Your task to perform on an android device: Go to ESPN.com Image 0: 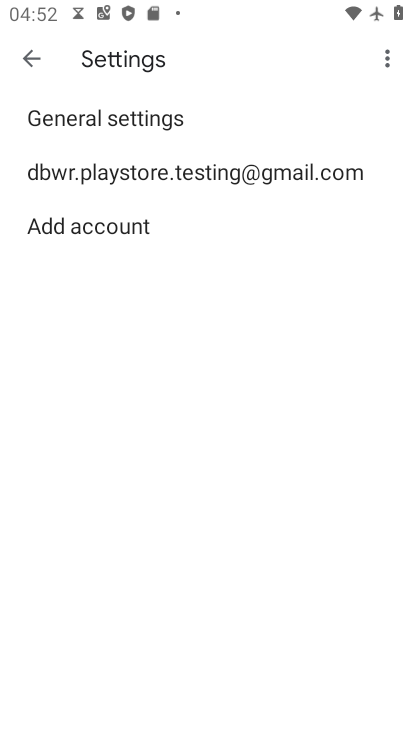
Step 0: press back button
Your task to perform on an android device: Go to ESPN.com Image 1: 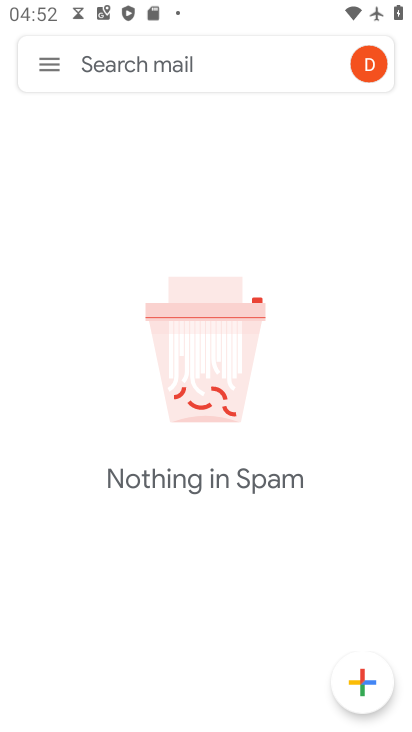
Step 1: press back button
Your task to perform on an android device: Go to ESPN.com Image 2: 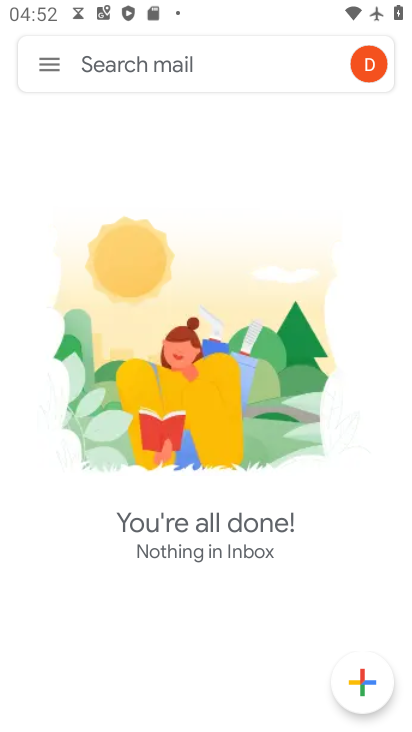
Step 2: press home button
Your task to perform on an android device: Go to ESPN.com Image 3: 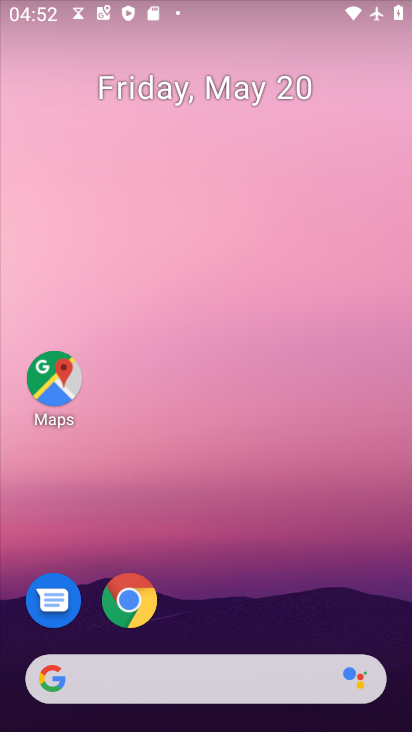
Step 3: drag from (321, 578) to (282, 40)
Your task to perform on an android device: Go to ESPN.com Image 4: 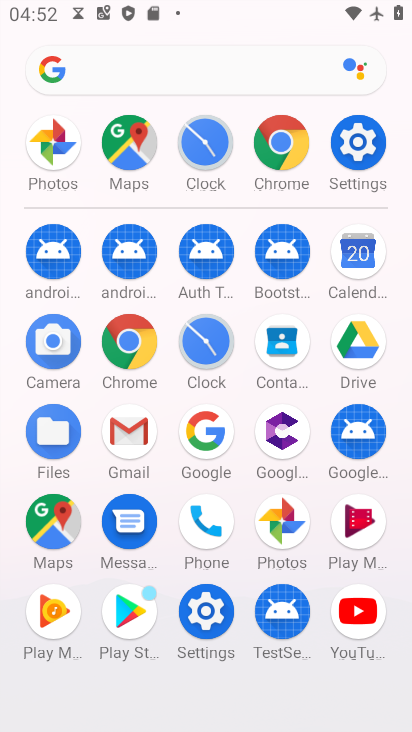
Step 4: click (119, 337)
Your task to perform on an android device: Go to ESPN.com Image 5: 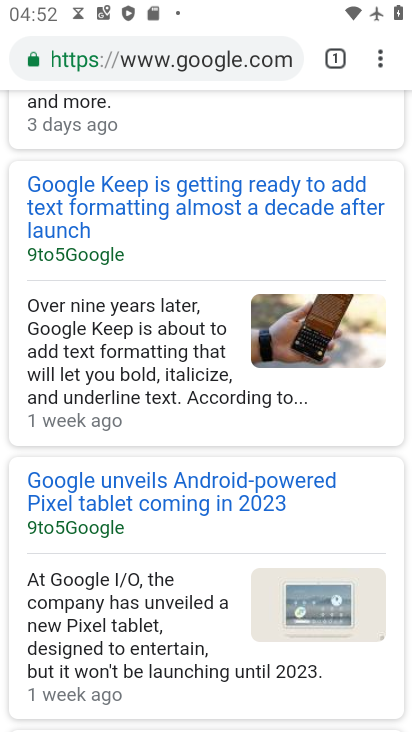
Step 5: click (172, 55)
Your task to perform on an android device: Go to ESPN.com Image 6: 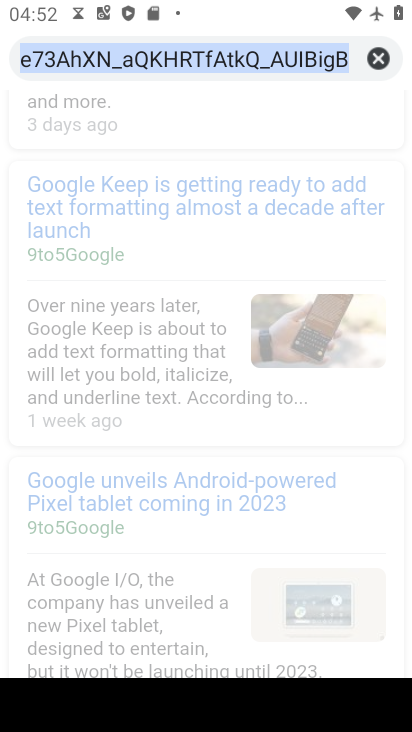
Step 6: click (377, 57)
Your task to perform on an android device: Go to ESPN.com Image 7: 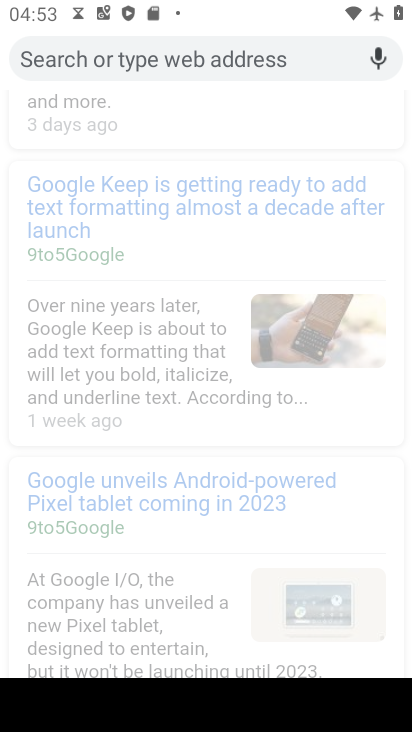
Step 7: type "ESPN.com"
Your task to perform on an android device: Go to ESPN.com Image 8: 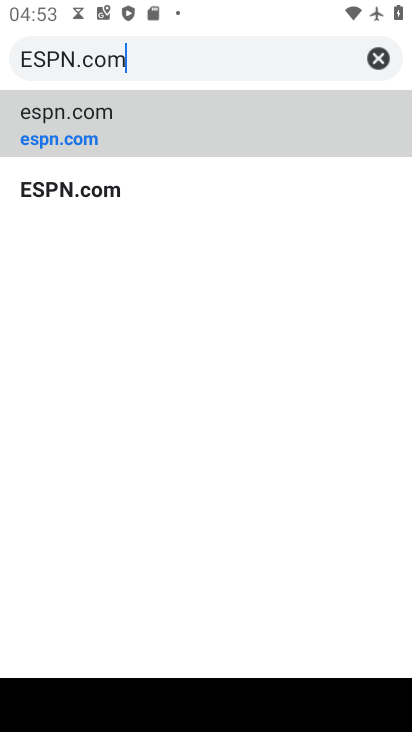
Step 8: type ""
Your task to perform on an android device: Go to ESPN.com Image 9: 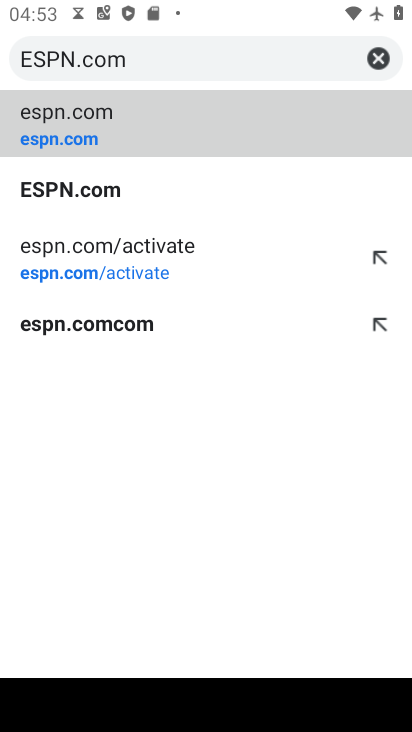
Step 9: click (70, 128)
Your task to perform on an android device: Go to ESPN.com Image 10: 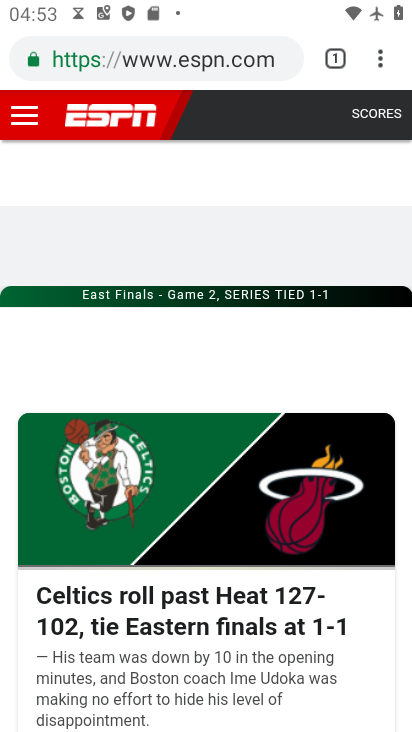
Step 10: task complete